Your task to perform on an android device: turn on the 12-hour format for clock Image 0: 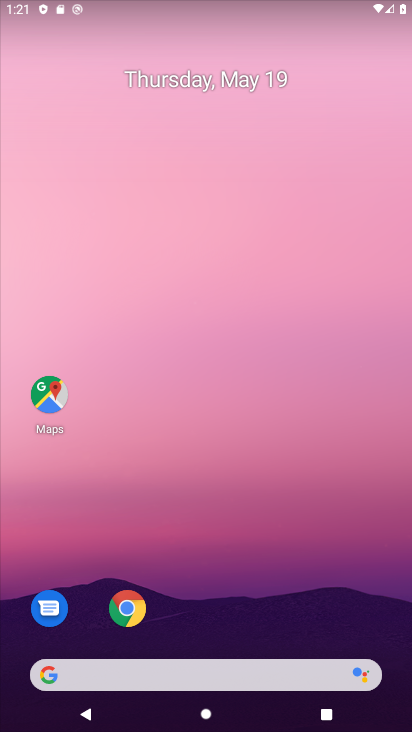
Step 0: drag from (271, 499) to (270, 104)
Your task to perform on an android device: turn on the 12-hour format for clock Image 1: 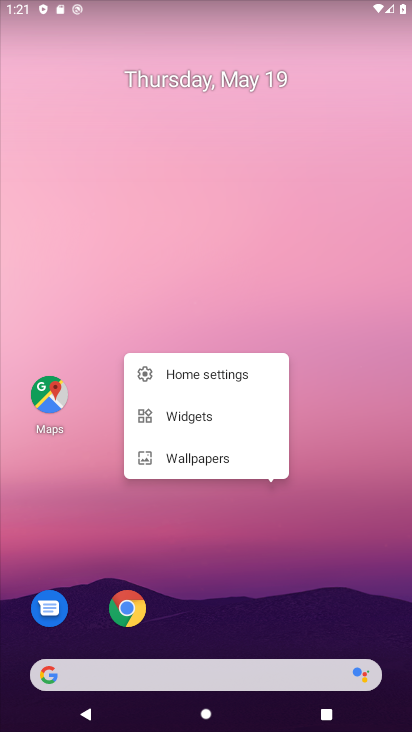
Step 1: click (290, 551)
Your task to perform on an android device: turn on the 12-hour format for clock Image 2: 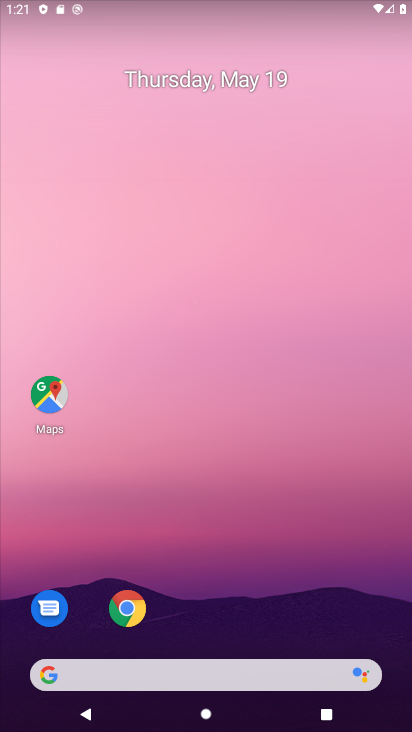
Step 2: drag from (290, 551) to (262, 159)
Your task to perform on an android device: turn on the 12-hour format for clock Image 3: 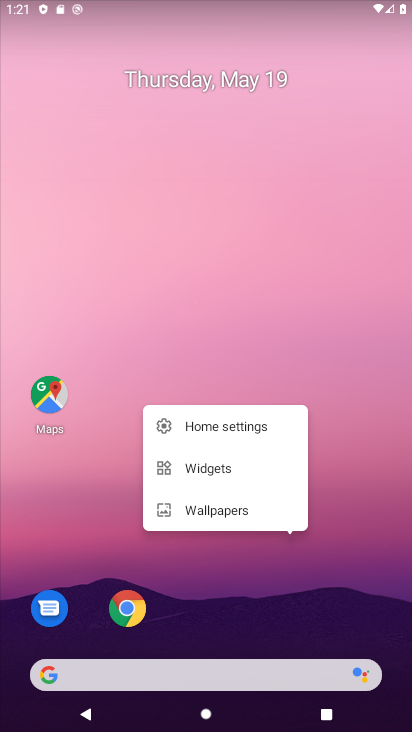
Step 3: click (264, 581)
Your task to perform on an android device: turn on the 12-hour format for clock Image 4: 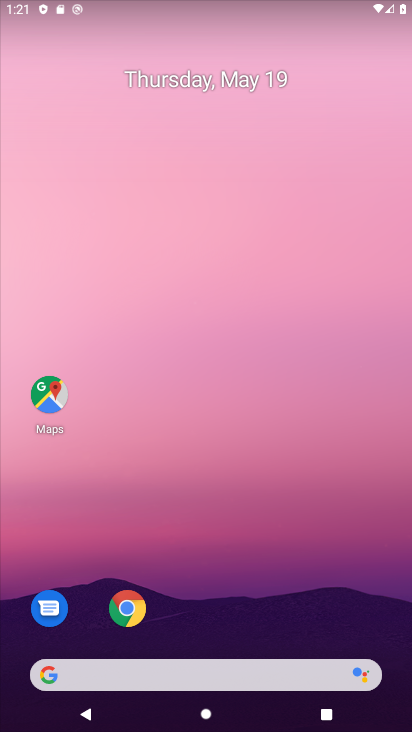
Step 4: drag from (264, 581) to (222, 23)
Your task to perform on an android device: turn on the 12-hour format for clock Image 5: 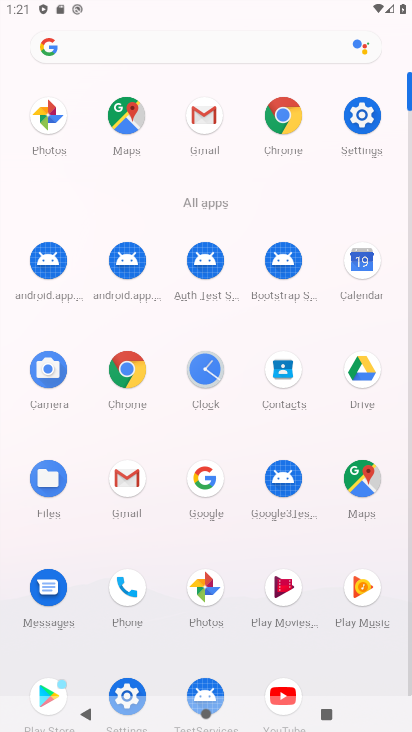
Step 5: click (221, 384)
Your task to perform on an android device: turn on the 12-hour format for clock Image 6: 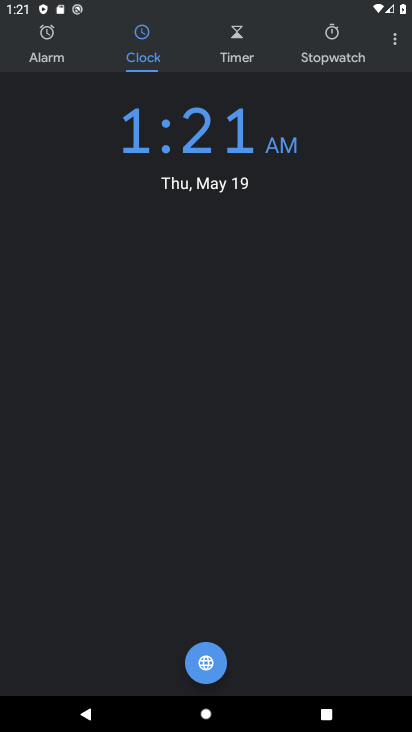
Step 6: click (388, 48)
Your task to perform on an android device: turn on the 12-hour format for clock Image 7: 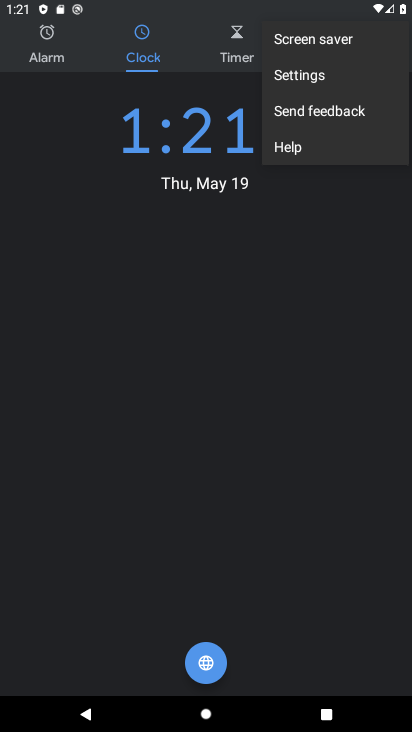
Step 7: click (315, 83)
Your task to perform on an android device: turn on the 12-hour format for clock Image 8: 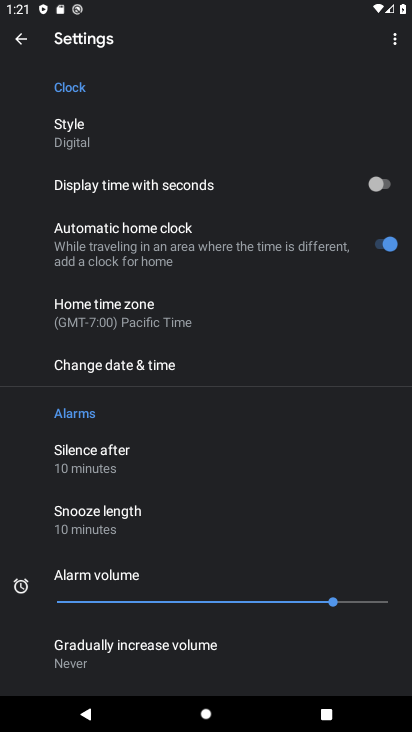
Step 8: click (184, 360)
Your task to perform on an android device: turn on the 12-hour format for clock Image 9: 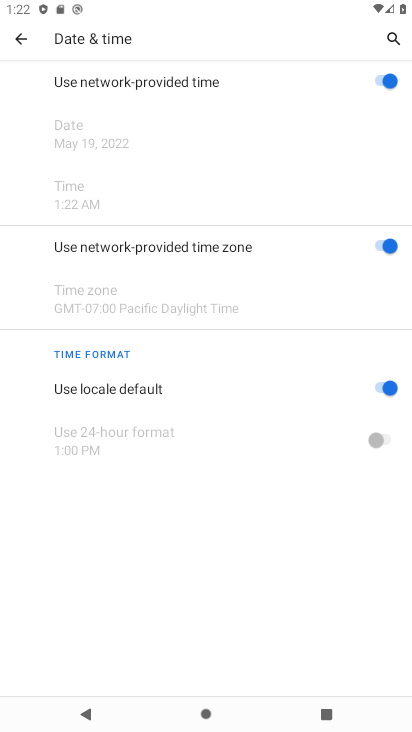
Step 9: task complete